Your task to perform on an android device: Open Maps and search for coffee Image 0: 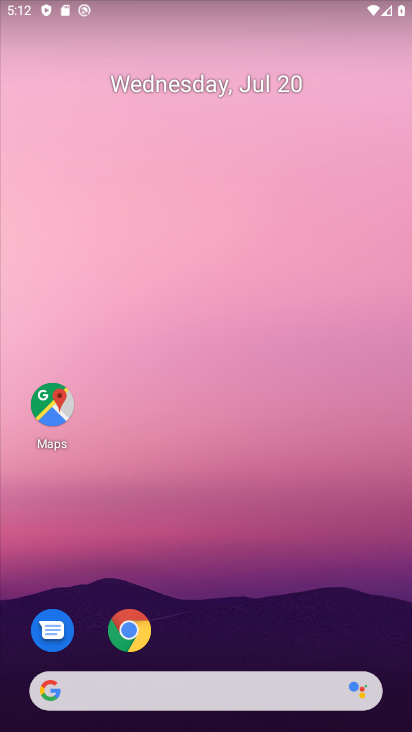
Step 0: drag from (313, 638) to (356, 46)
Your task to perform on an android device: Open Maps and search for coffee Image 1: 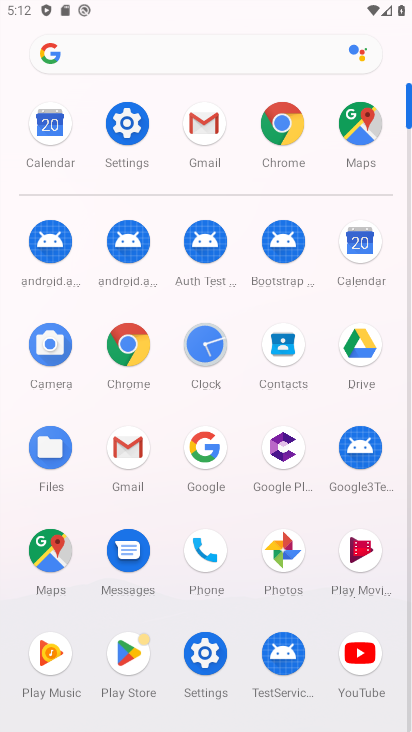
Step 1: click (50, 558)
Your task to perform on an android device: Open Maps and search for coffee Image 2: 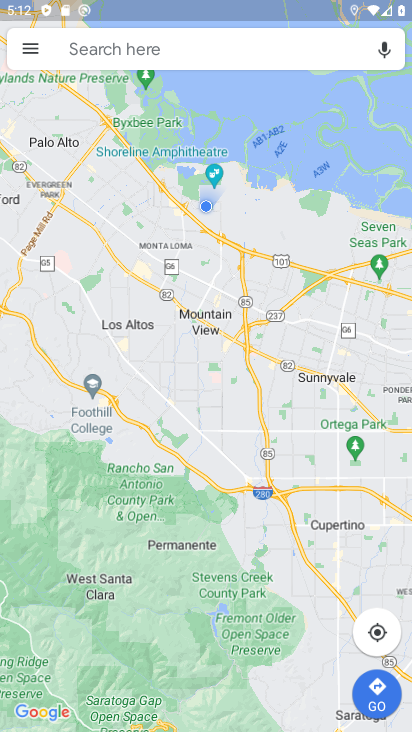
Step 2: click (232, 54)
Your task to perform on an android device: Open Maps and search for coffee Image 3: 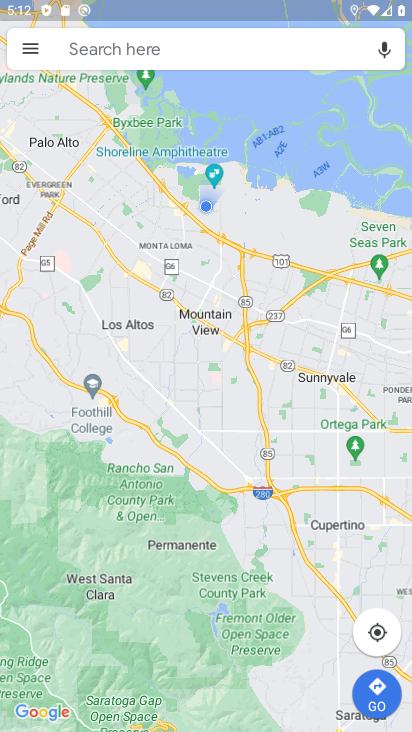
Step 3: click (232, 54)
Your task to perform on an android device: Open Maps and search for coffee Image 4: 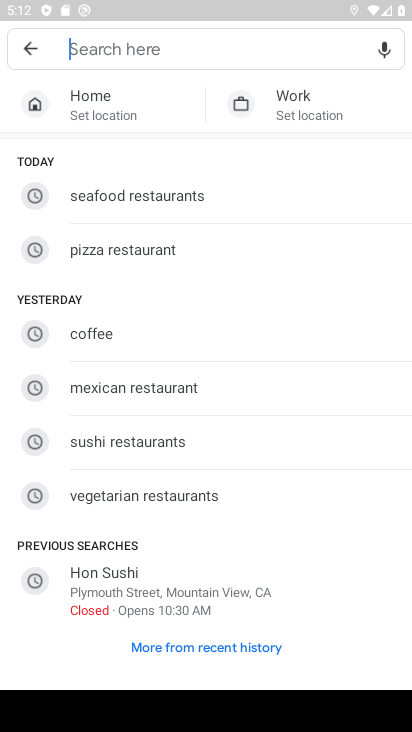
Step 4: type "coffee"
Your task to perform on an android device: Open Maps and search for coffee Image 5: 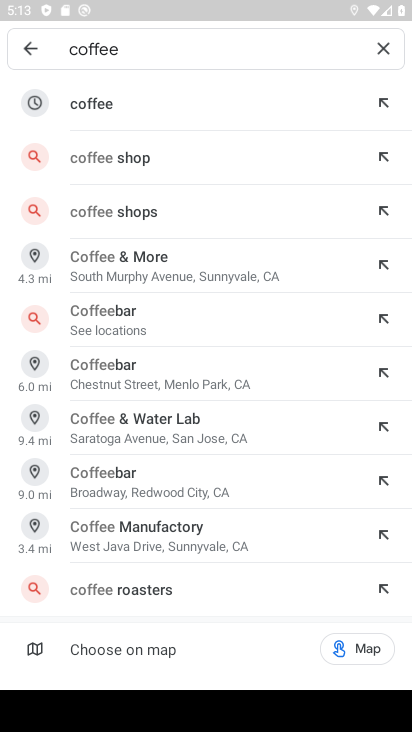
Step 5: click (107, 100)
Your task to perform on an android device: Open Maps and search for coffee Image 6: 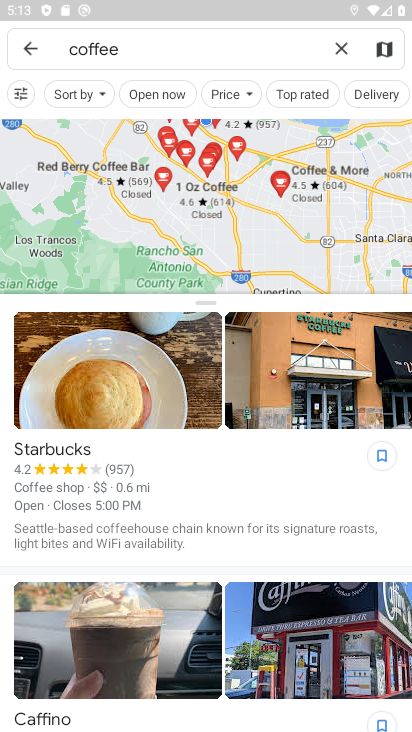
Step 6: task complete